Your task to perform on an android device: Open Maps and search for coffee Image 0: 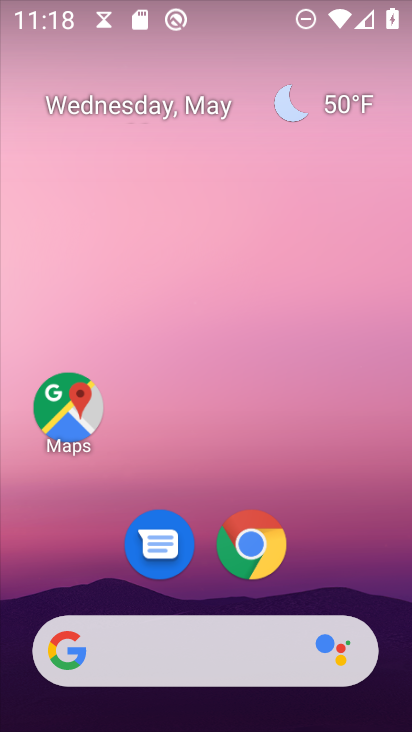
Step 0: click (64, 424)
Your task to perform on an android device: Open Maps and search for coffee Image 1: 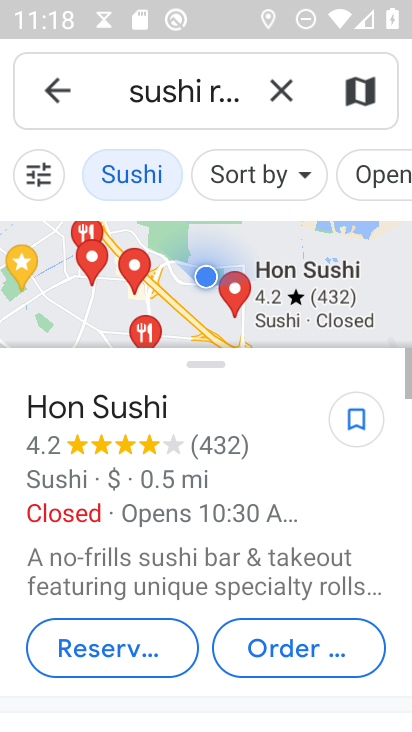
Step 1: click (256, 94)
Your task to perform on an android device: Open Maps and search for coffee Image 2: 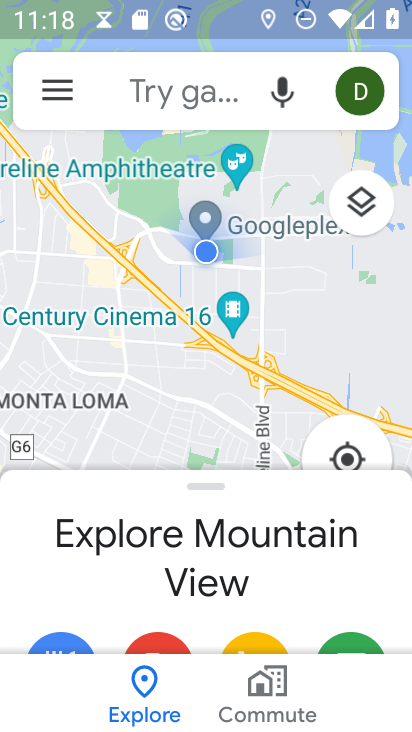
Step 2: click (207, 86)
Your task to perform on an android device: Open Maps and search for coffee Image 3: 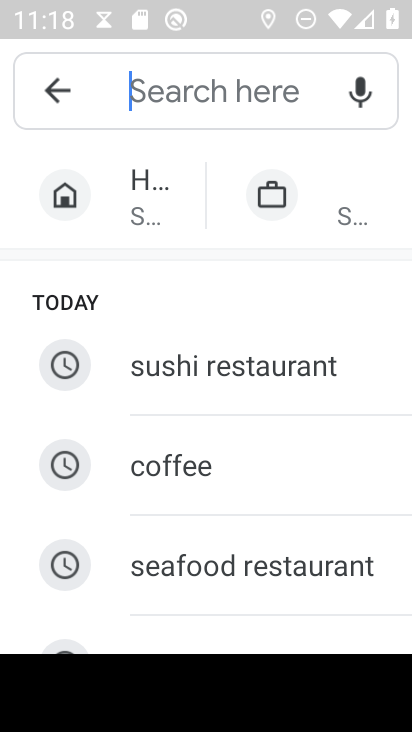
Step 3: click (202, 492)
Your task to perform on an android device: Open Maps and search for coffee Image 4: 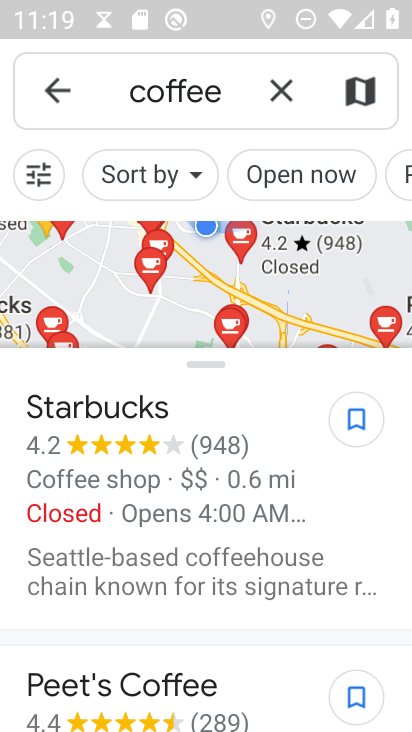
Step 4: task complete